Your task to perform on an android device: turn off priority inbox in the gmail app Image 0: 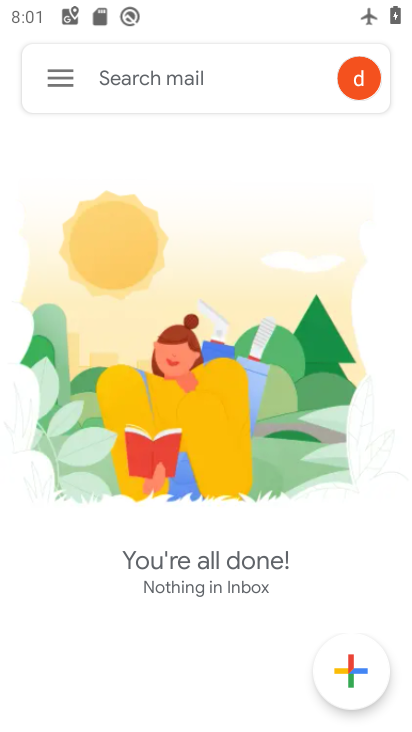
Step 0: click (61, 73)
Your task to perform on an android device: turn off priority inbox in the gmail app Image 1: 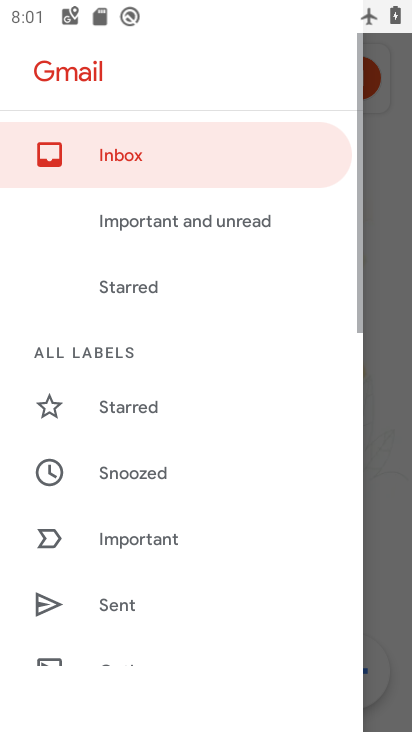
Step 1: drag from (123, 638) to (267, 28)
Your task to perform on an android device: turn off priority inbox in the gmail app Image 2: 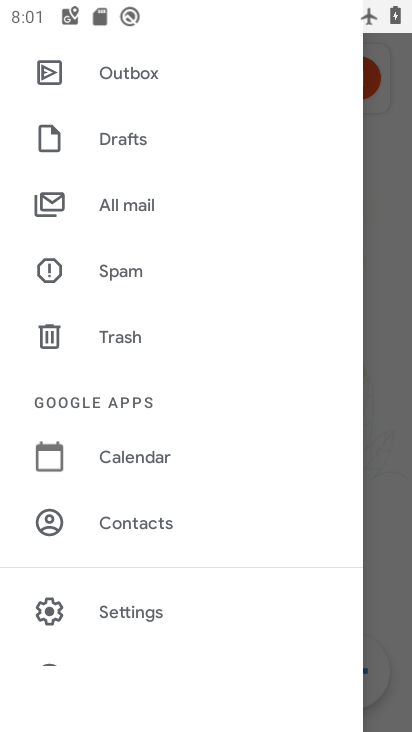
Step 2: drag from (83, 599) to (170, 241)
Your task to perform on an android device: turn off priority inbox in the gmail app Image 3: 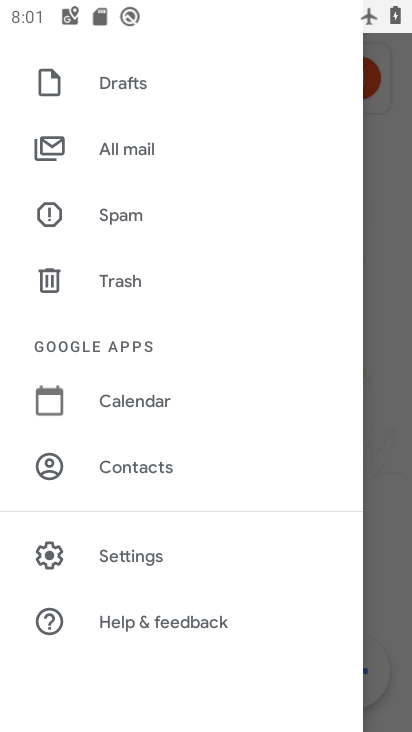
Step 3: click (131, 560)
Your task to perform on an android device: turn off priority inbox in the gmail app Image 4: 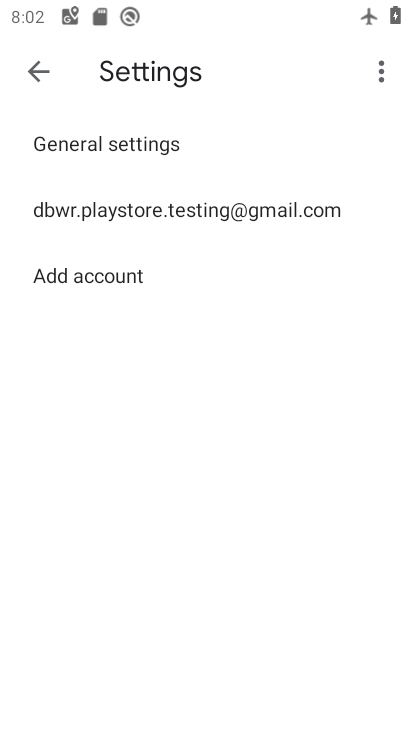
Step 4: click (127, 211)
Your task to perform on an android device: turn off priority inbox in the gmail app Image 5: 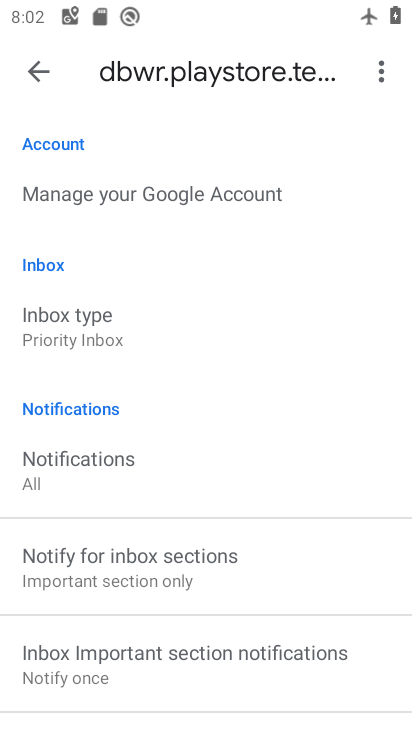
Step 5: click (137, 343)
Your task to perform on an android device: turn off priority inbox in the gmail app Image 6: 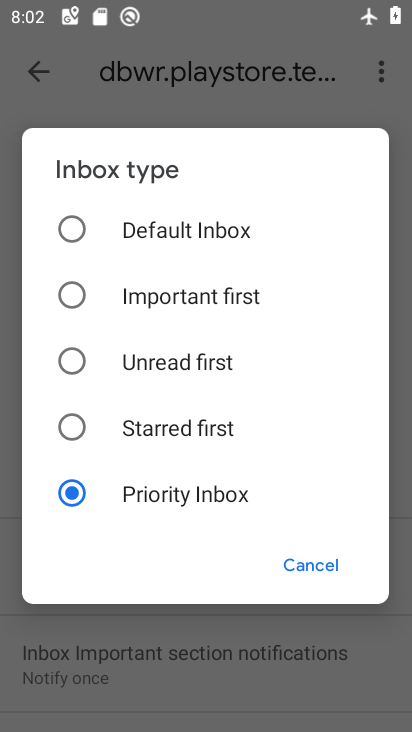
Step 6: click (151, 227)
Your task to perform on an android device: turn off priority inbox in the gmail app Image 7: 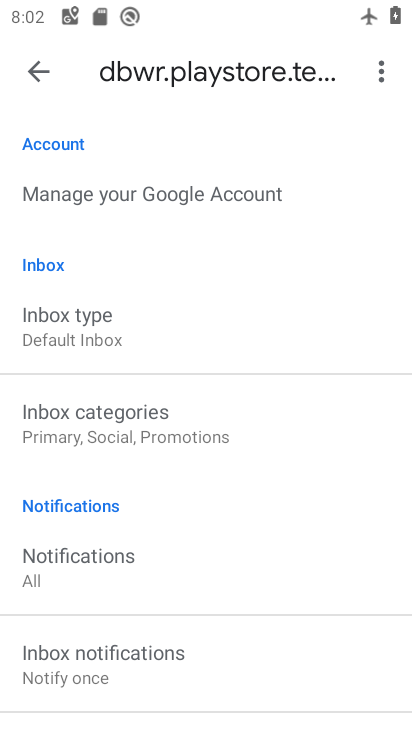
Step 7: task complete